Your task to perform on an android device: Go to notification settings Image 0: 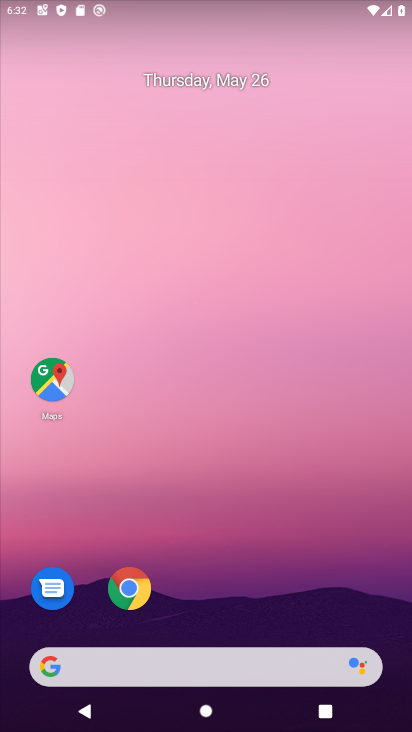
Step 0: drag from (394, 652) to (270, 7)
Your task to perform on an android device: Go to notification settings Image 1: 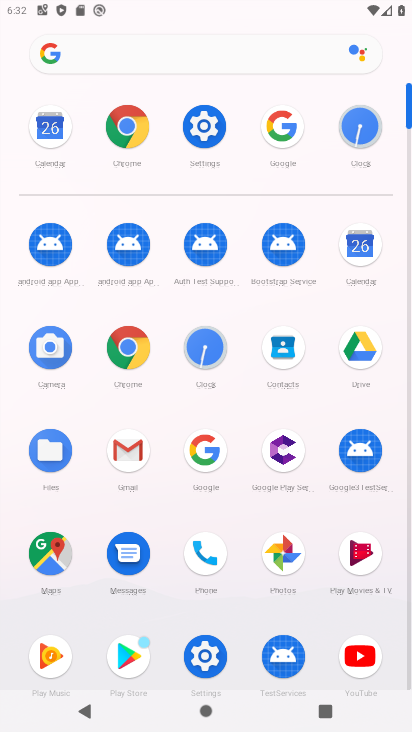
Step 1: click (203, 671)
Your task to perform on an android device: Go to notification settings Image 2: 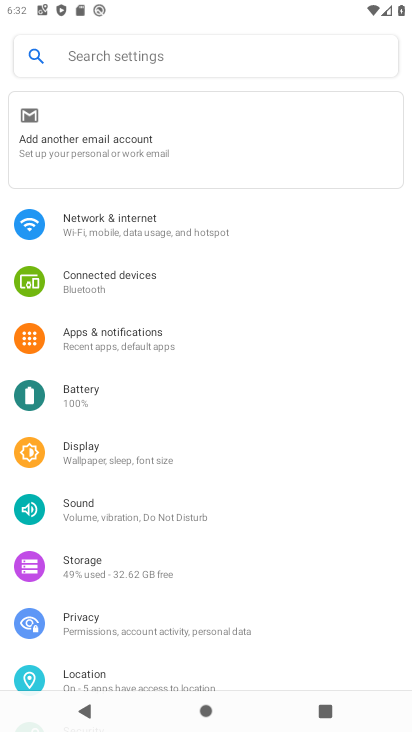
Step 2: click (149, 346)
Your task to perform on an android device: Go to notification settings Image 3: 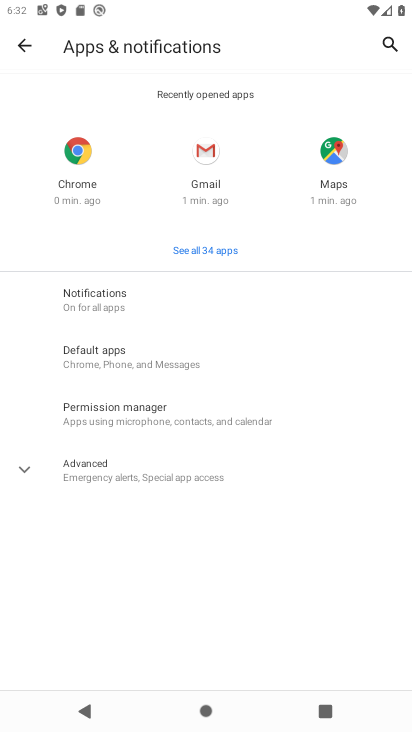
Step 3: click (165, 314)
Your task to perform on an android device: Go to notification settings Image 4: 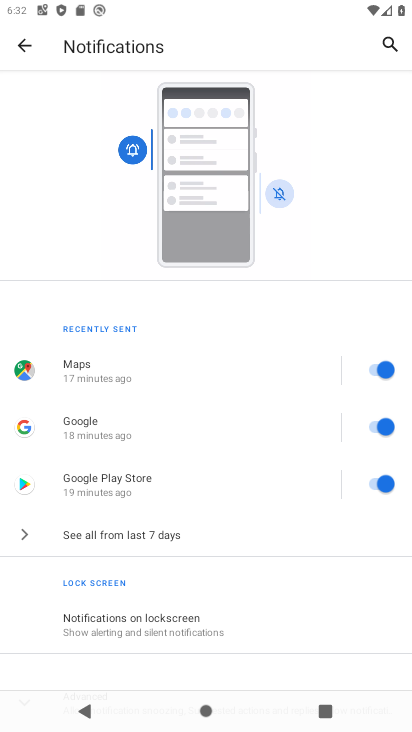
Step 4: task complete